Your task to perform on an android device: Search for Mexican restaurants on Maps Image 0: 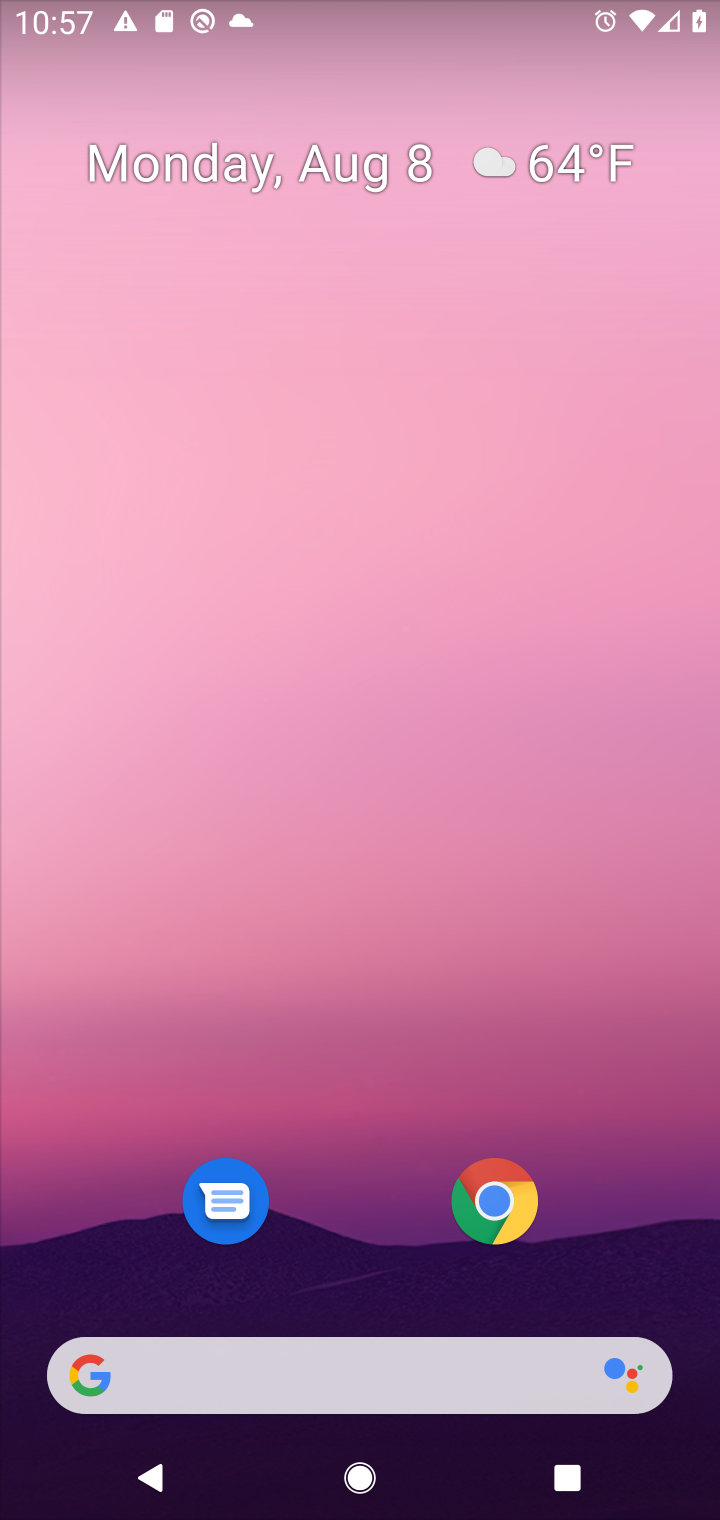
Step 0: press home button
Your task to perform on an android device: Search for Mexican restaurants on Maps Image 1: 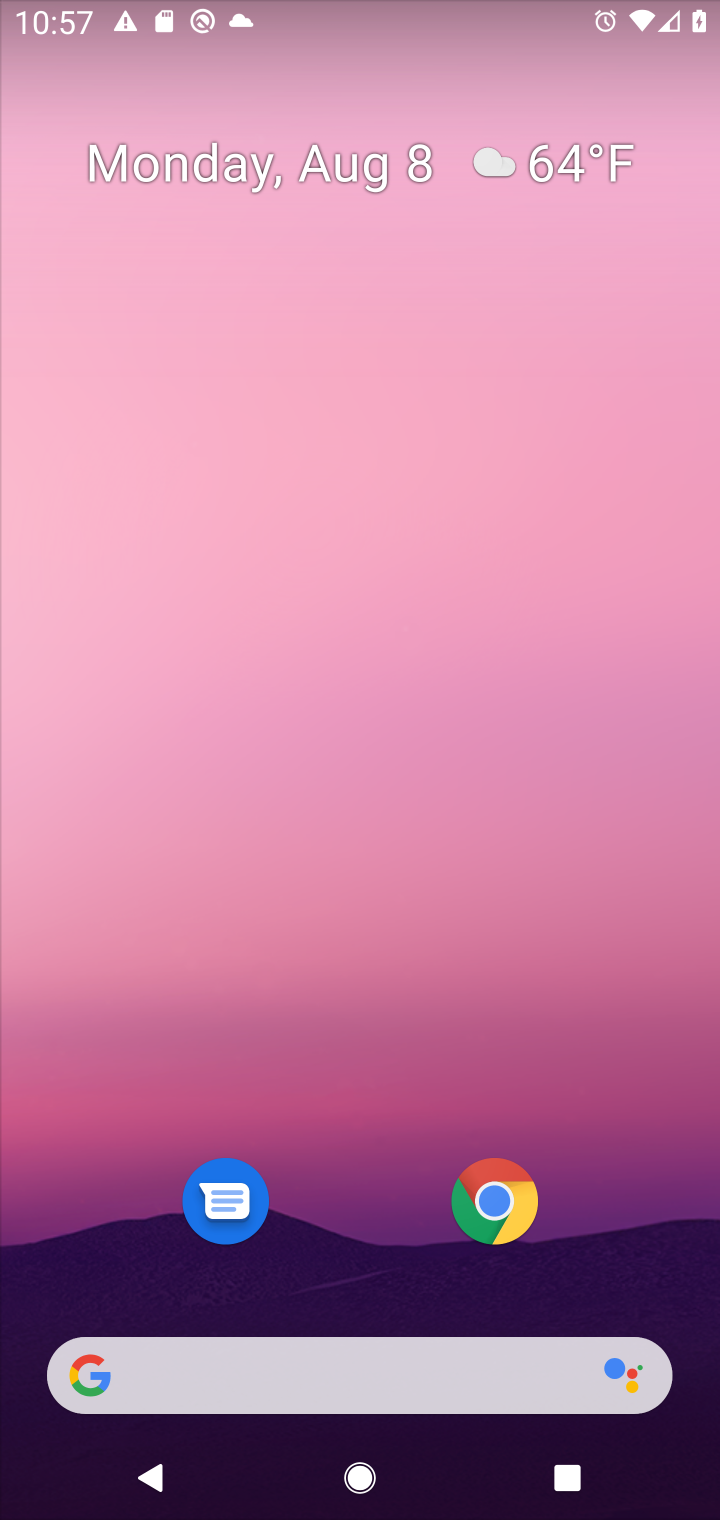
Step 1: drag from (376, 1297) to (366, 281)
Your task to perform on an android device: Search for Mexican restaurants on Maps Image 2: 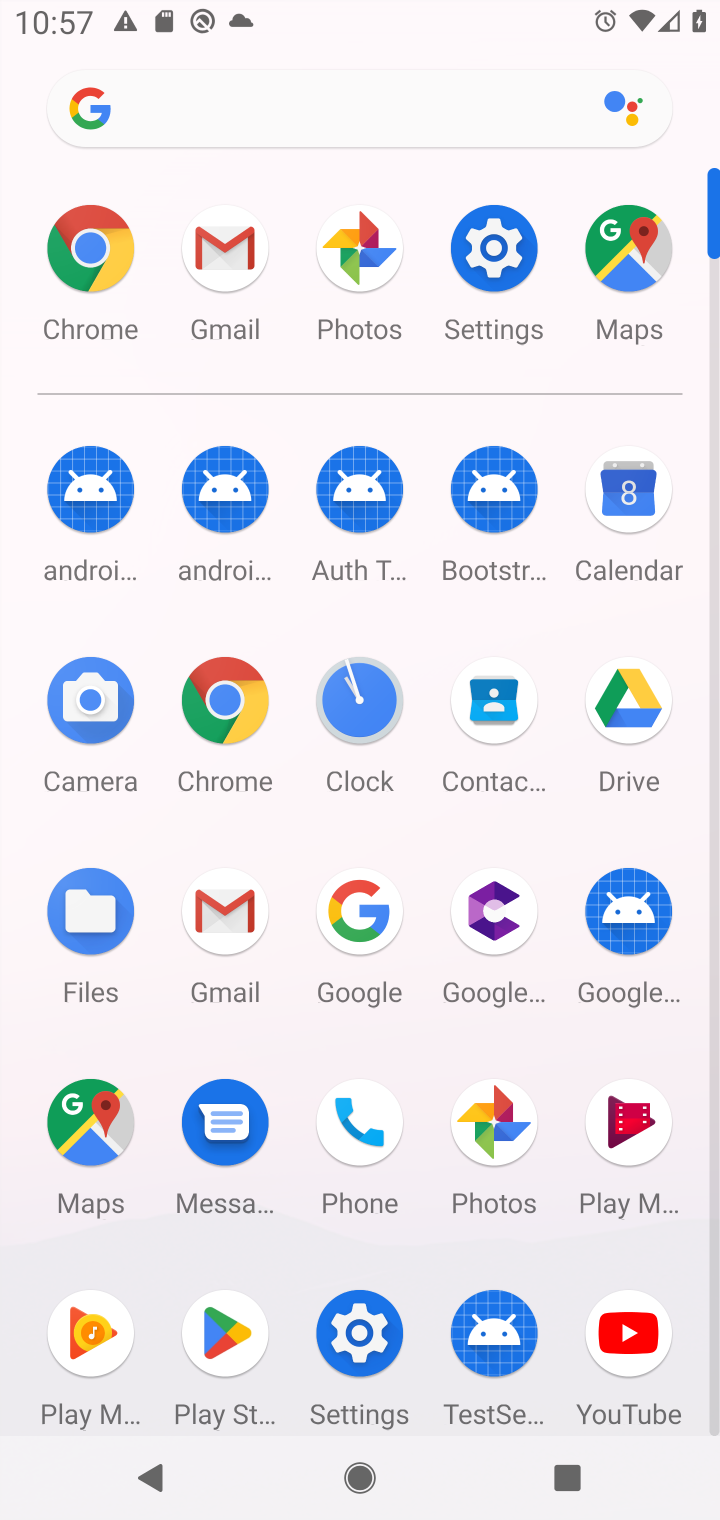
Step 2: click (83, 1124)
Your task to perform on an android device: Search for Mexican restaurants on Maps Image 3: 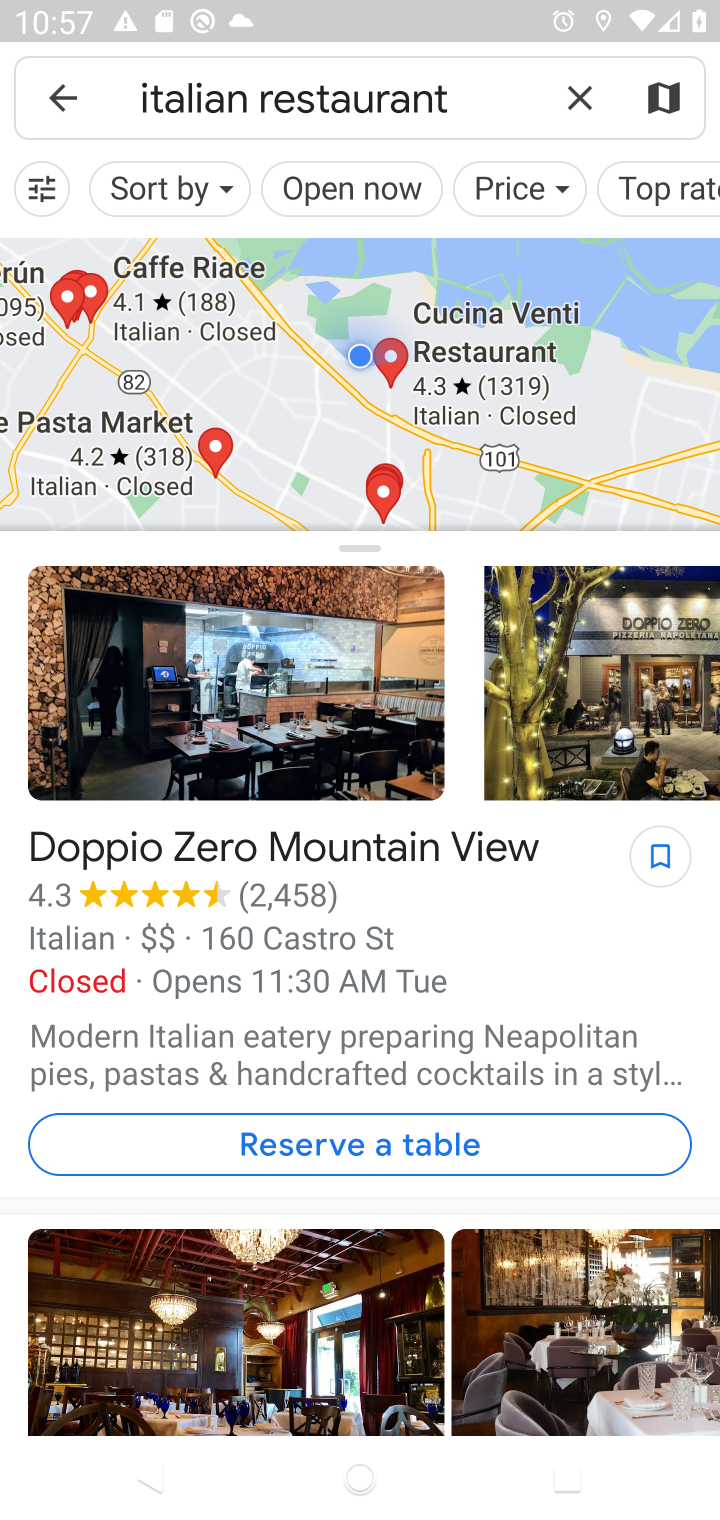
Step 3: click (577, 74)
Your task to perform on an android device: Search for Mexican restaurants on Maps Image 4: 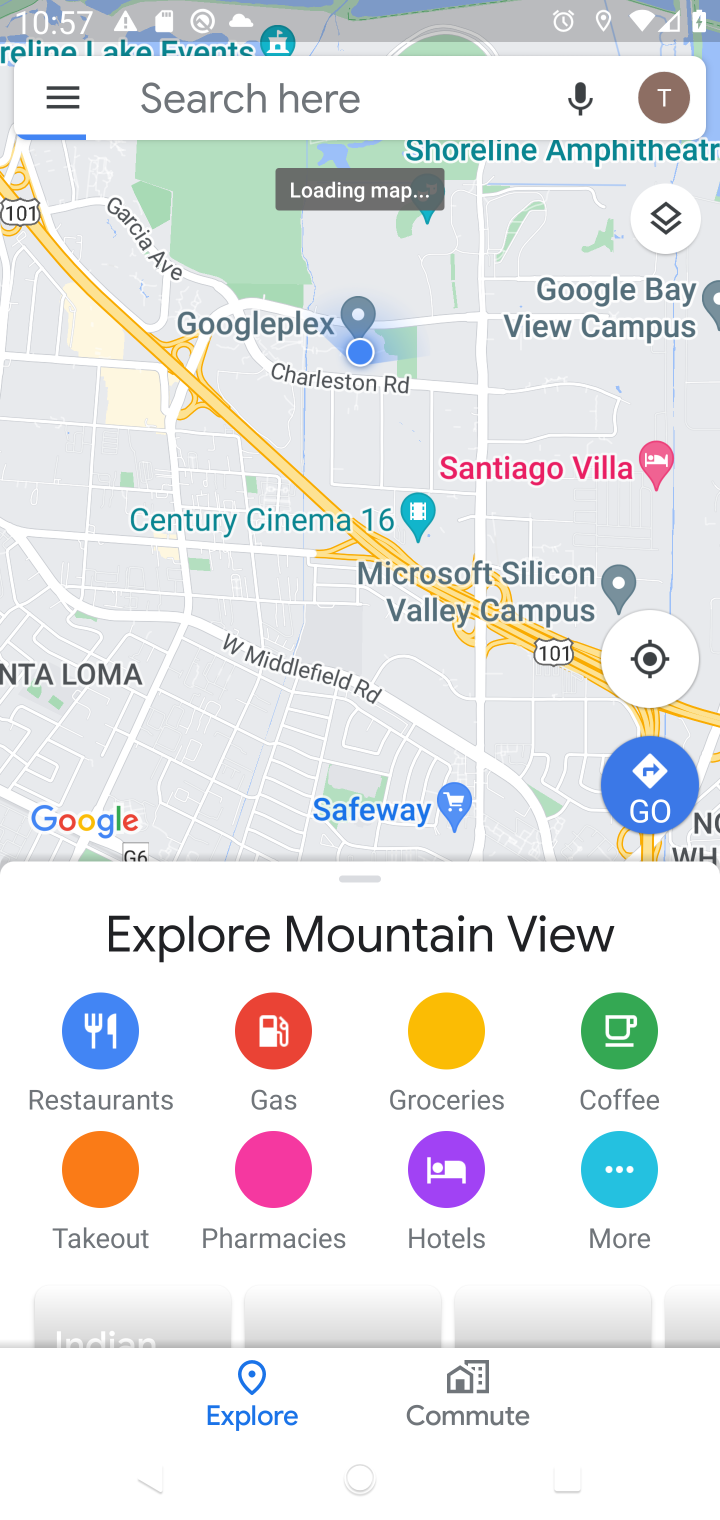
Step 4: click (382, 101)
Your task to perform on an android device: Search for Mexican restaurants on Maps Image 5: 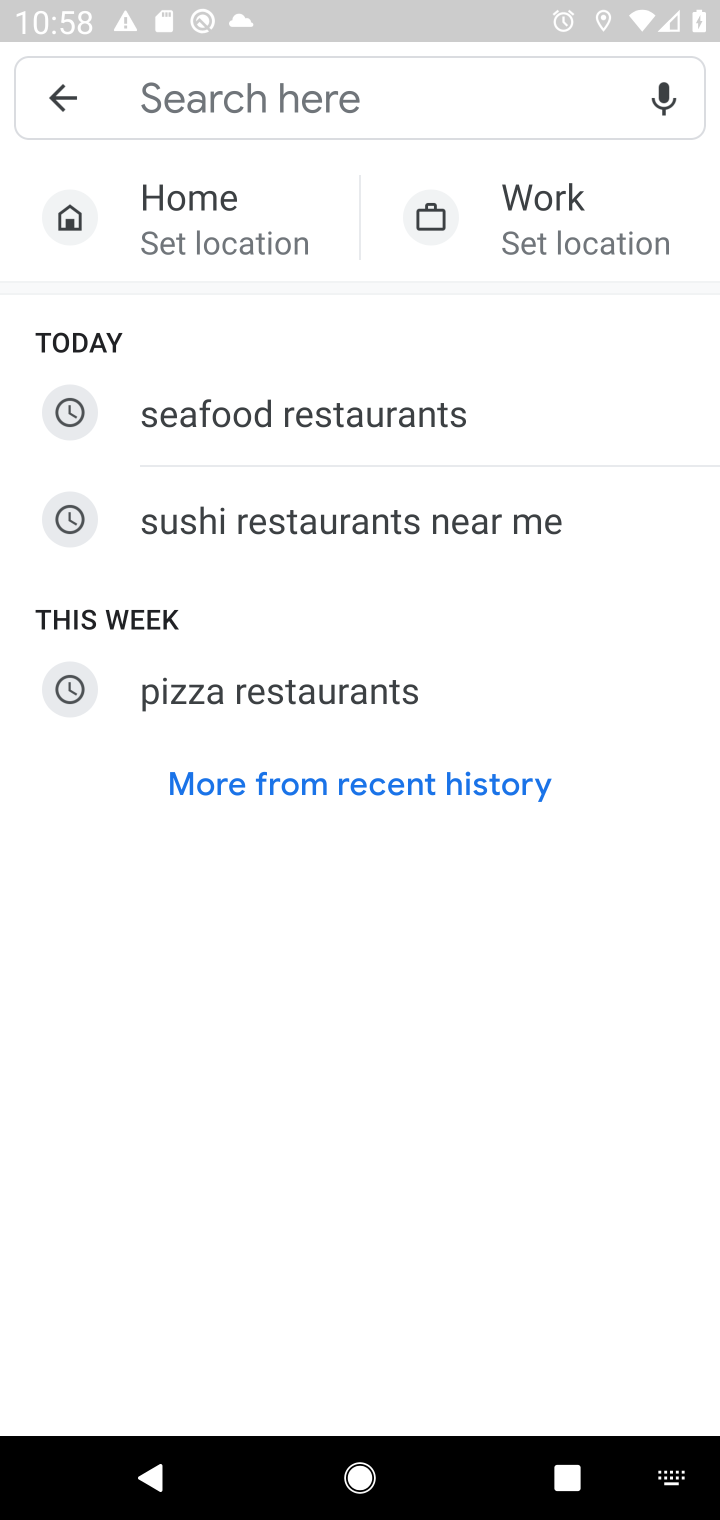
Step 5: type "mexcian restaurants"
Your task to perform on an android device: Search for Mexican restaurants on Maps Image 6: 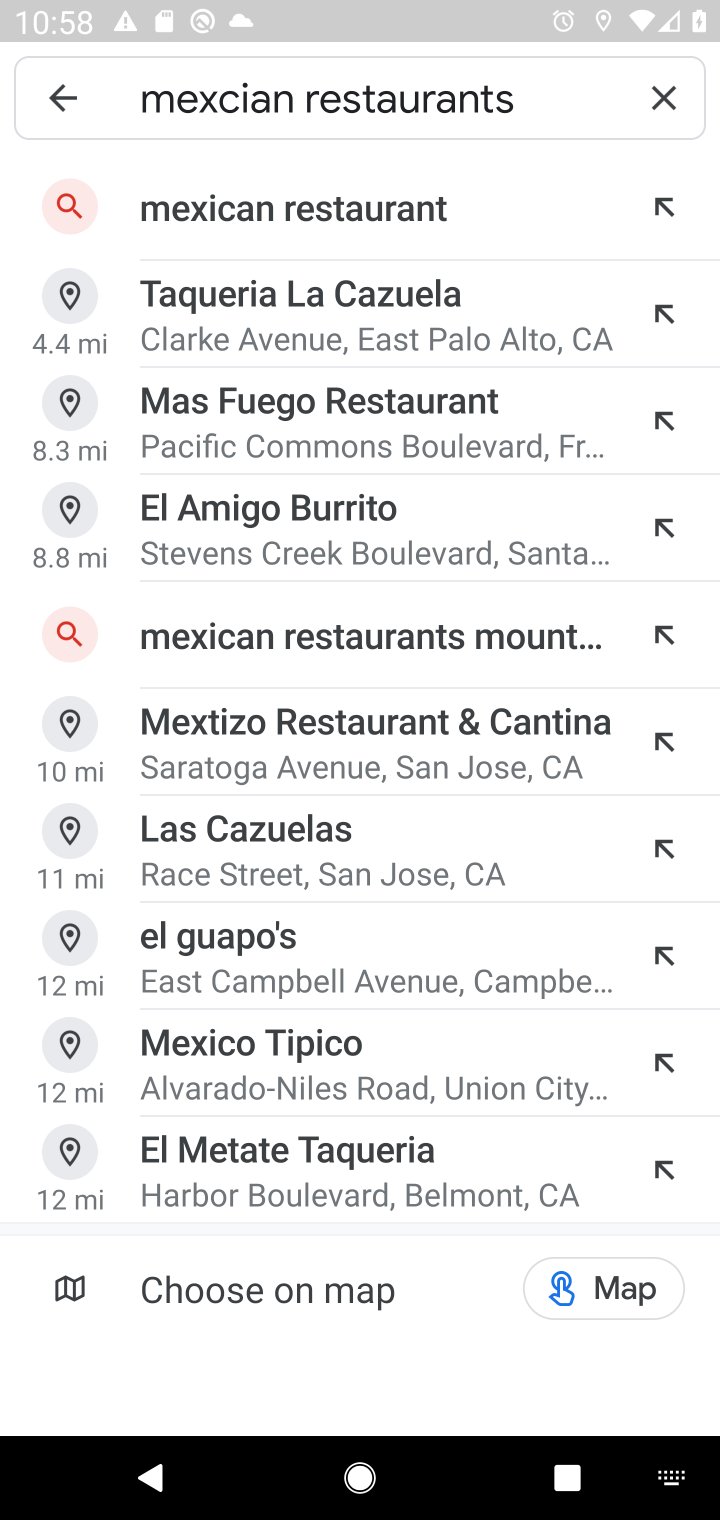
Step 6: click (373, 201)
Your task to perform on an android device: Search for Mexican restaurants on Maps Image 7: 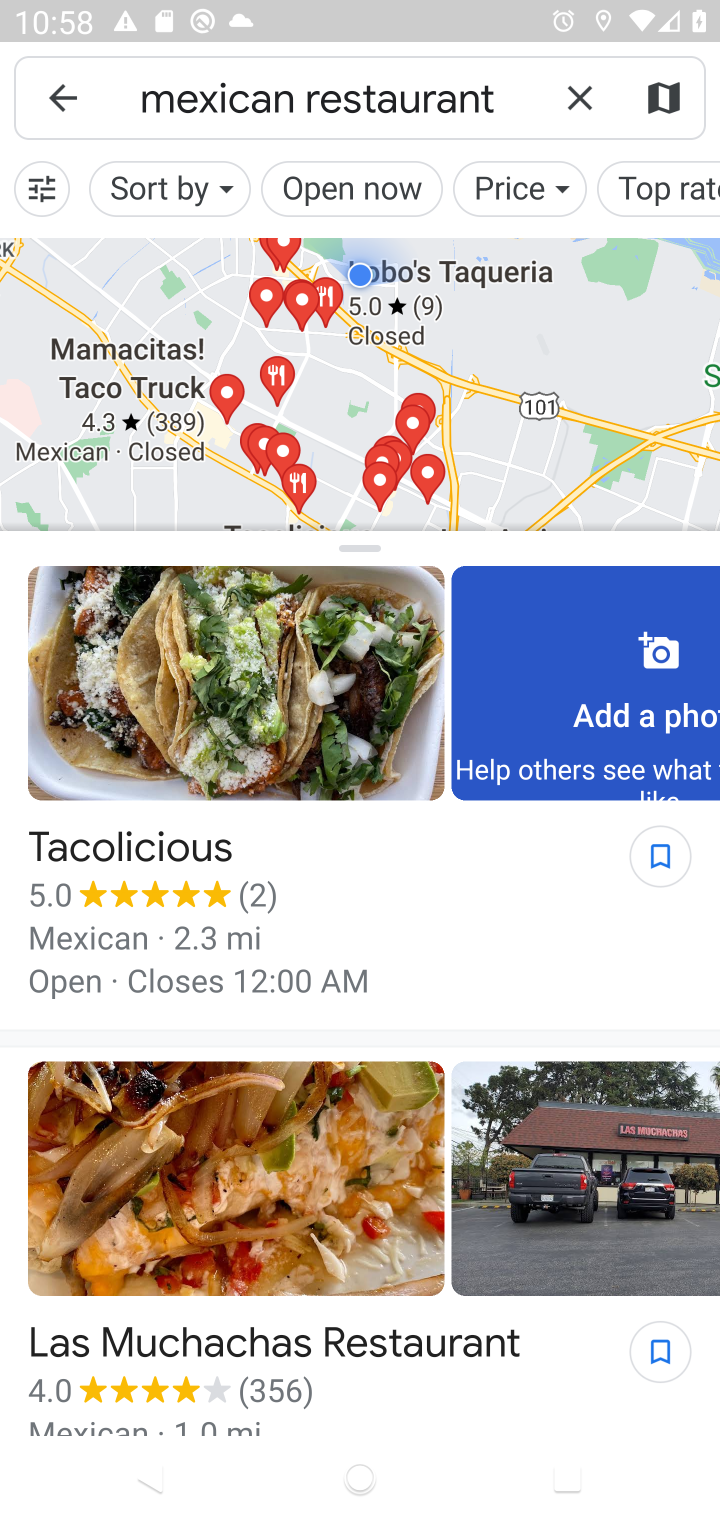
Step 7: task complete